Your task to perform on an android device: Open network settings Image 0: 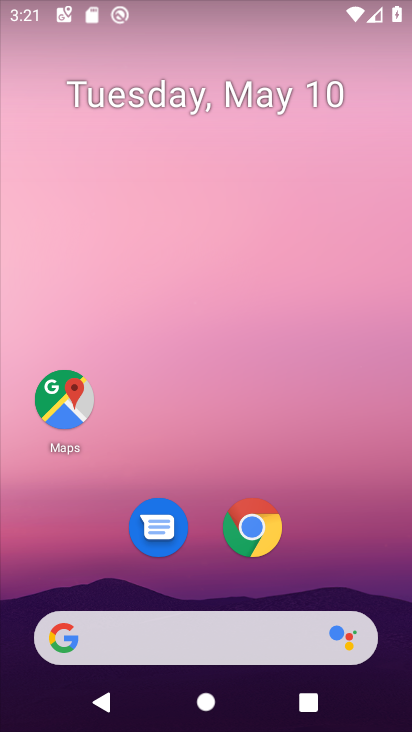
Step 0: drag from (397, 420) to (378, 280)
Your task to perform on an android device: Open network settings Image 1: 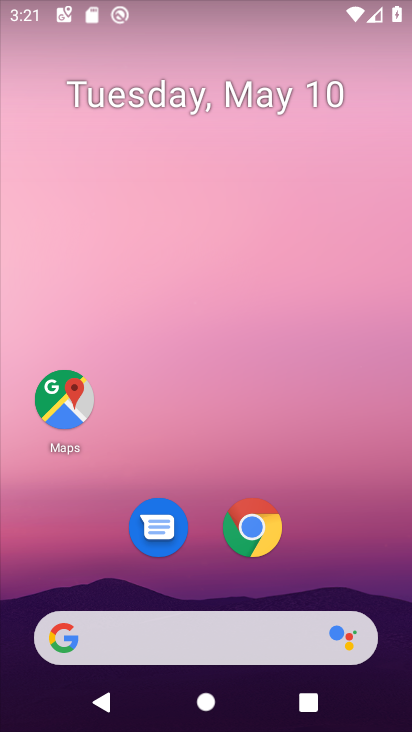
Step 1: drag from (395, 650) to (382, 314)
Your task to perform on an android device: Open network settings Image 2: 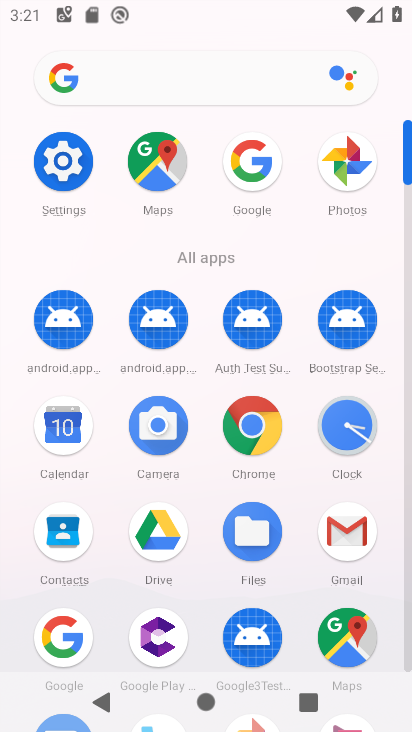
Step 2: click (63, 158)
Your task to perform on an android device: Open network settings Image 3: 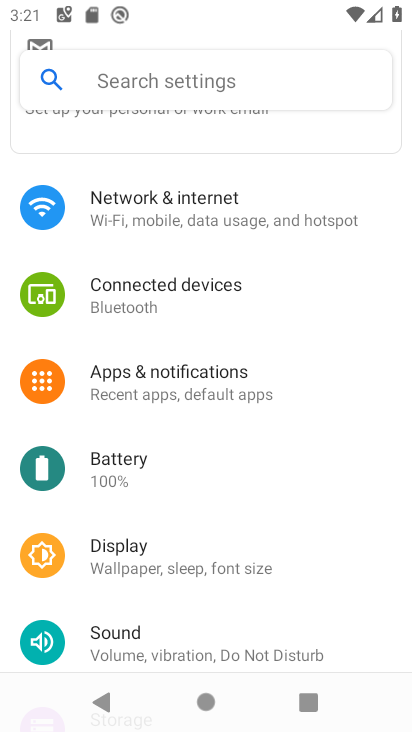
Step 3: click (148, 205)
Your task to perform on an android device: Open network settings Image 4: 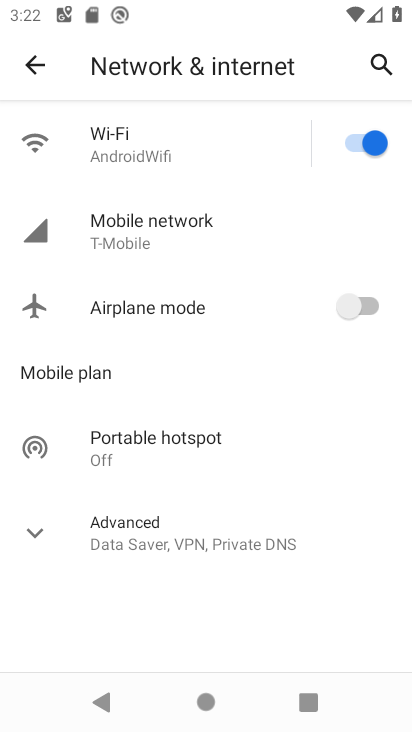
Step 4: click (159, 224)
Your task to perform on an android device: Open network settings Image 5: 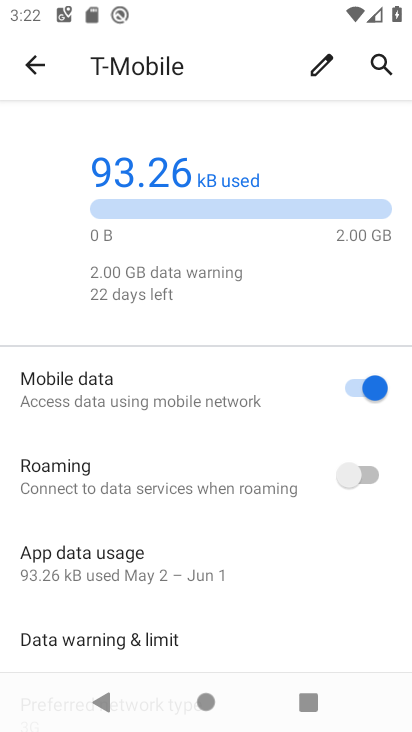
Step 5: task complete